Your task to perform on an android device: toggle airplane mode Image 0: 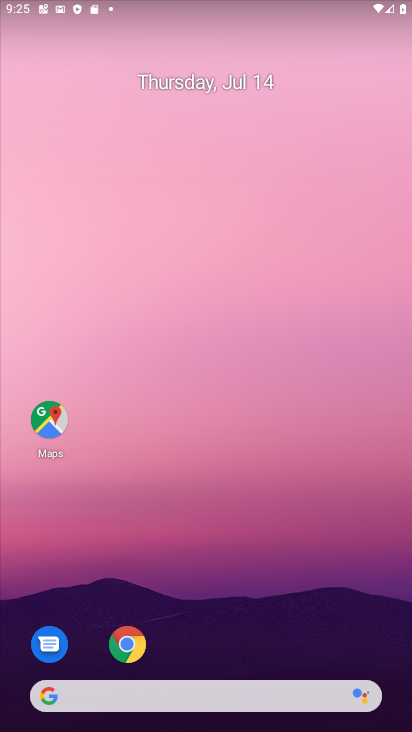
Step 0: drag from (203, 572) to (244, 33)
Your task to perform on an android device: toggle airplane mode Image 1: 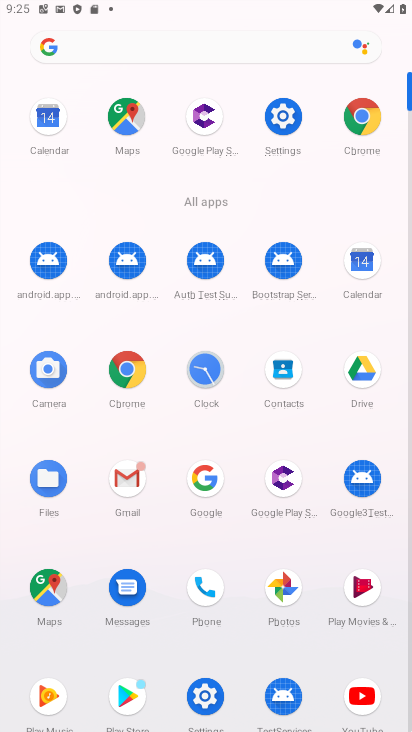
Step 1: click (285, 119)
Your task to perform on an android device: toggle airplane mode Image 2: 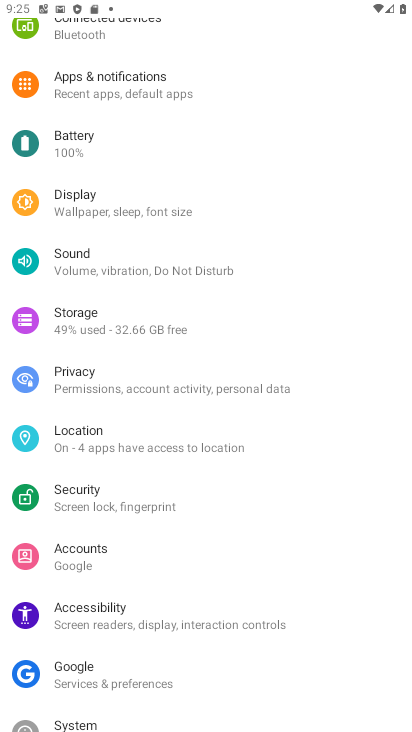
Step 2: drag from (145, 90) to (145, 326)
Your task to perform on an android device: toggle airplane mode Image 3: 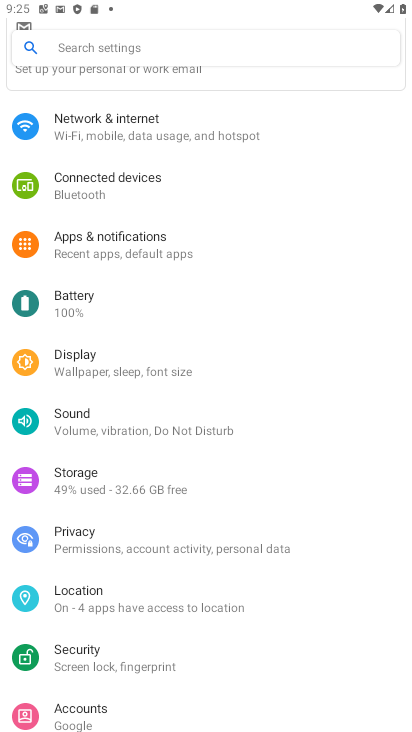
Step 3: click (95, 116)
Your task to perform on an android device: toggle airplane mode Image 4: 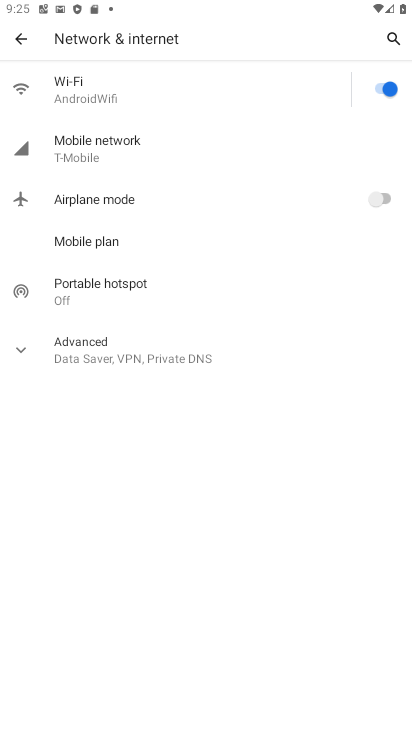
Step 4: click (388, 196)
Your task to perform on an android device: toggle airplane mode Image 5: 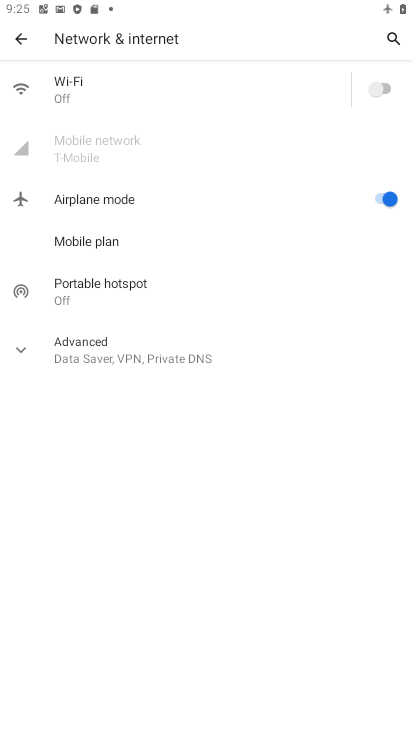
Step 5: task complete